Your task to perform on an android device: add a contact Image 0: 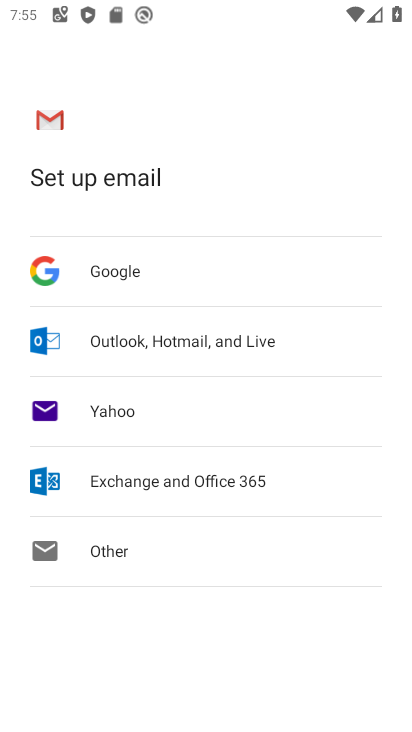
Step 0: press home button
Your task to perform on an android device: add a contact Image 1: 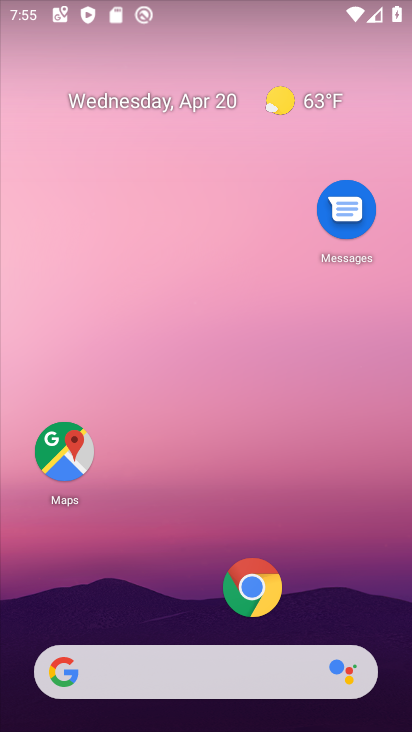
Step 1: drag from (154, 660) to (315, 38)
Your task to perform on an android device: add a contact Image 2: 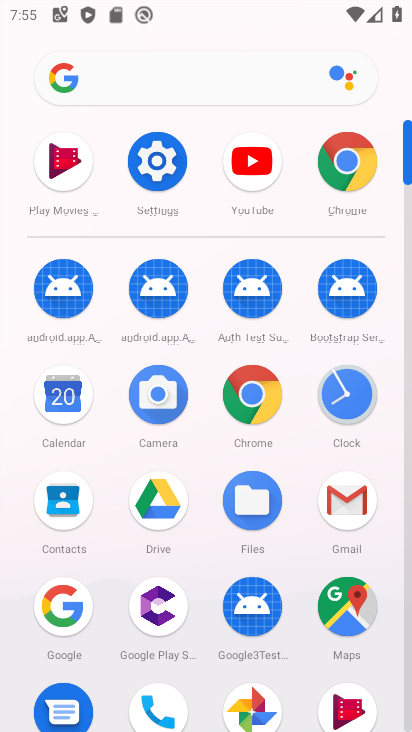
Step 2: click (63, 510)
Your task to perform on an android device: add a contact Image 3: 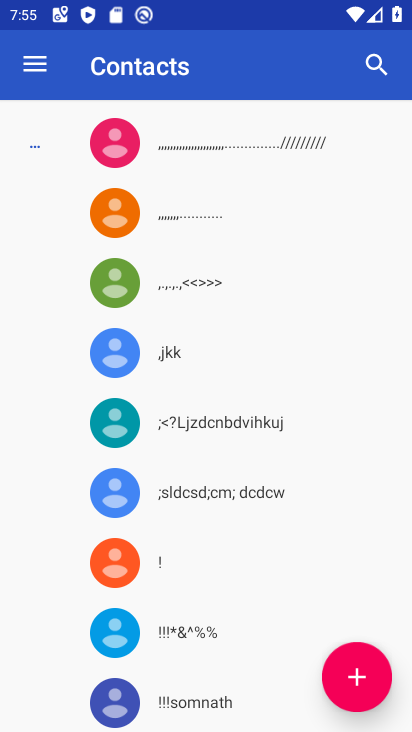
Step 3: click (352, 677)
Your task to perform on an android device: add a contact Image 4: 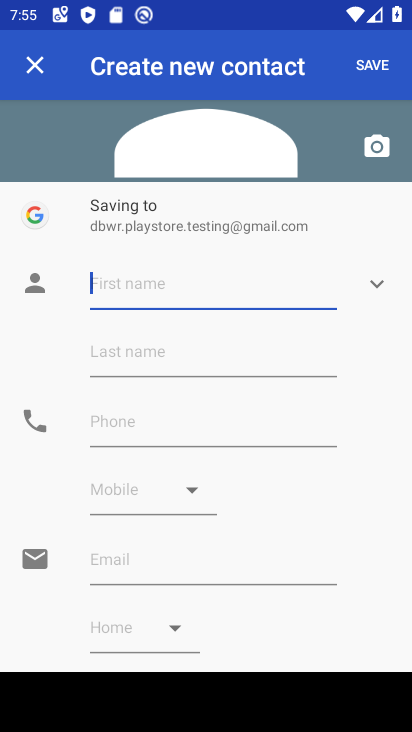
Step 4: type "autrgdf"
Your task to perform on an android device: add a contact Image 5: 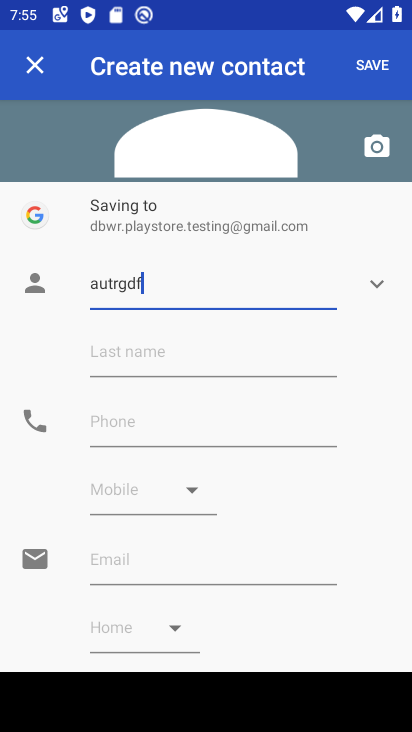
Step 5: click (126, 426)
Your task to perform on an android device: add a contact Image 6: 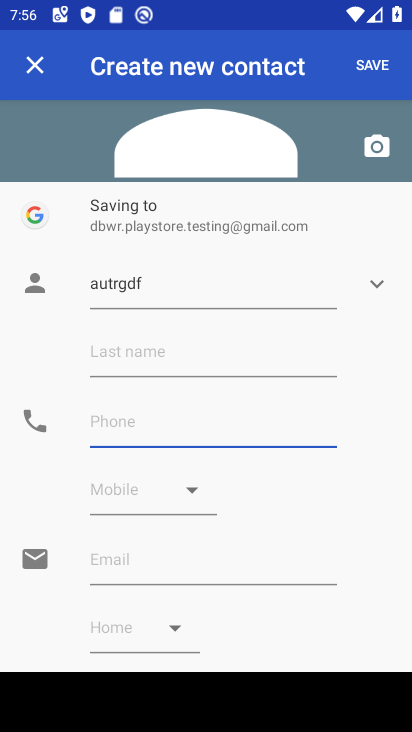
Step 6: type "0987676876"
Your task to perform on an android device: add a contact Image 7: 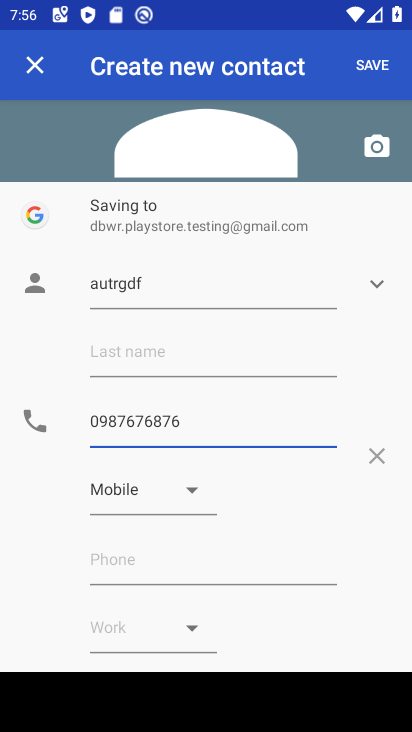
Step 7: click (376, 61)
Your task to perform on an android device: add a contact Image 8: 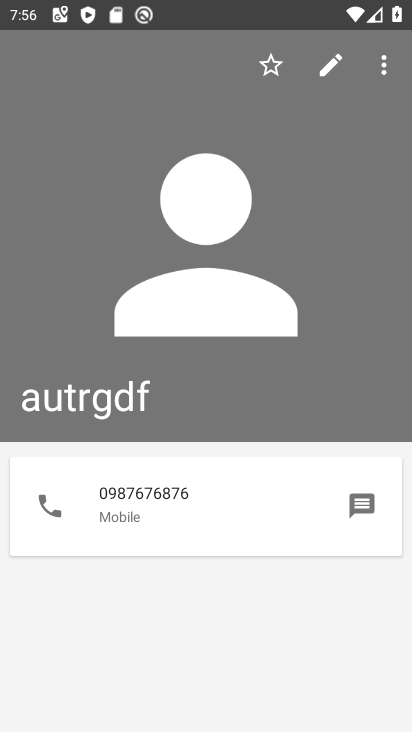
Step 8: task complete